Your task to perform on an android device: Go to Maps Image 0: 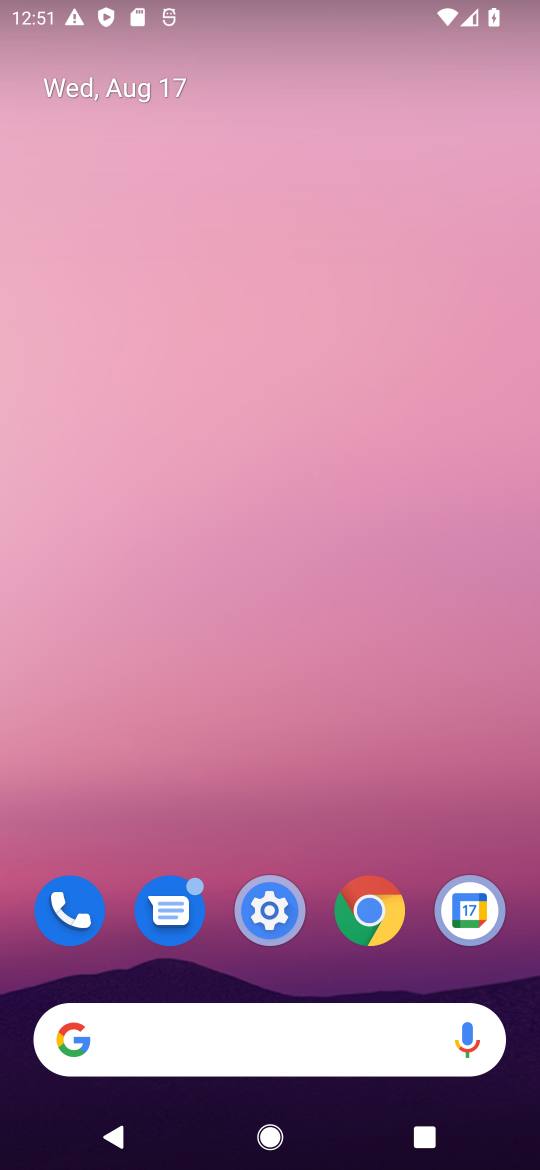
Step 0: drag from (251, 973) to (371, 13)
Your task to perform on an android device: Go to Maps Image 1: 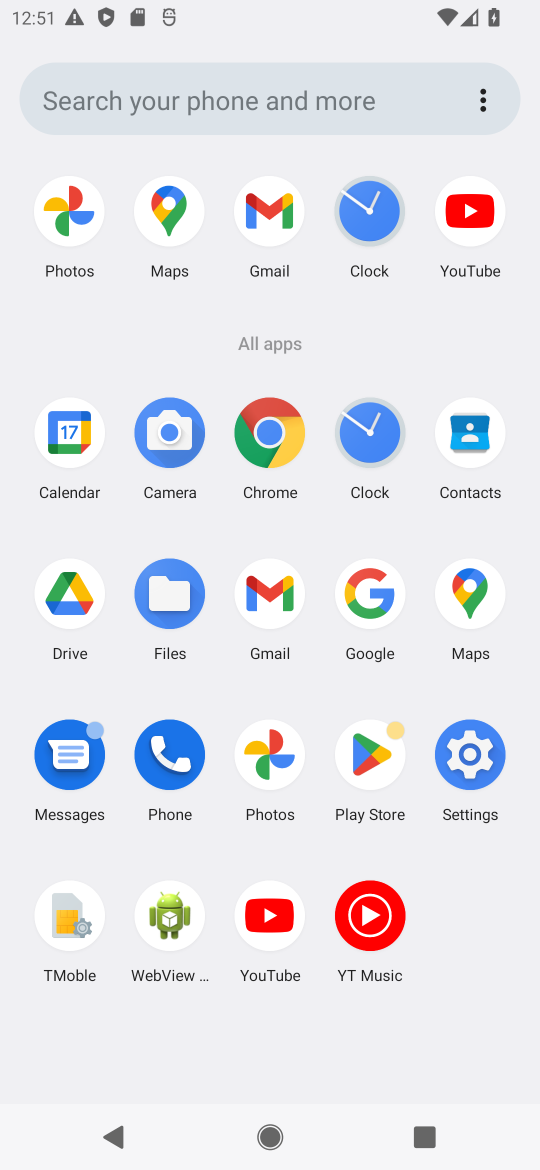
Step 1: click (467, 586)
Your task to perform on an android device: Go to Maps Image 2: 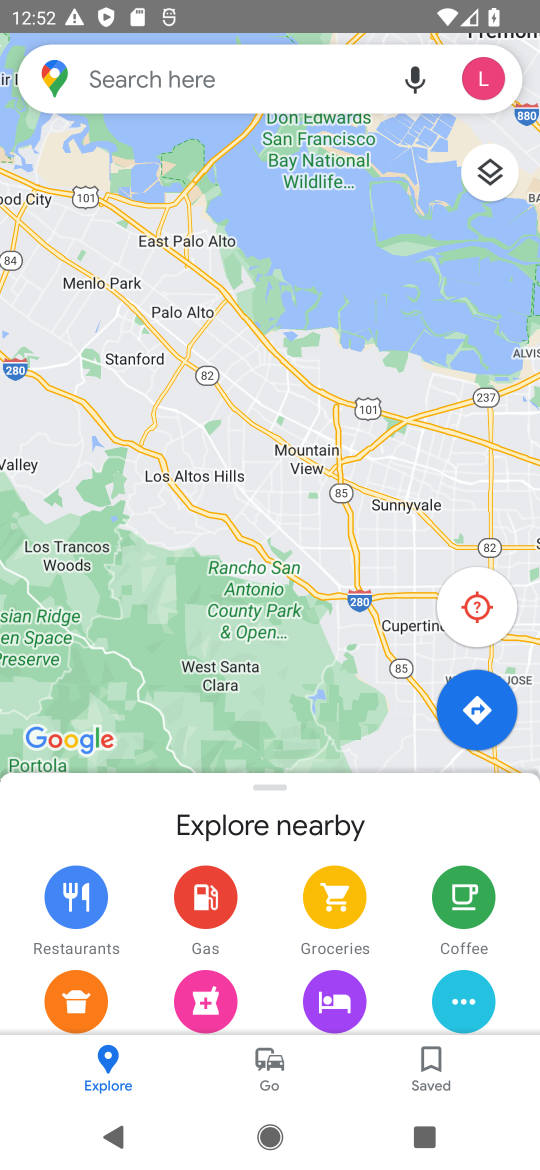
Step 2: task complete